Your task to perform on an android device: Search for Italian restaurants on Maps Image 0: 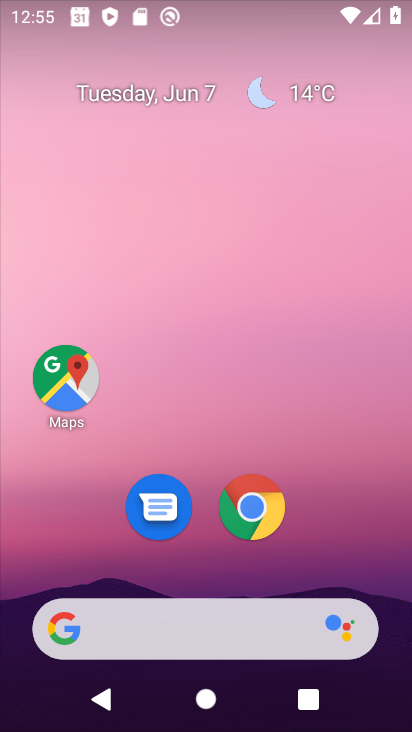
Step 0: click (39, 360)
Your task to perform on an android device: Search for Italian restaurants on Maps Image 1: 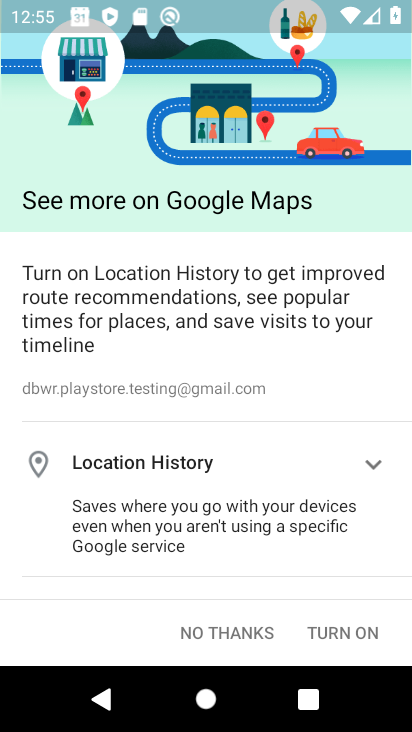
Step 1: click (225, 637)
Your task to perform on an android device: Search for Italian restaurants on Maps Image 2: 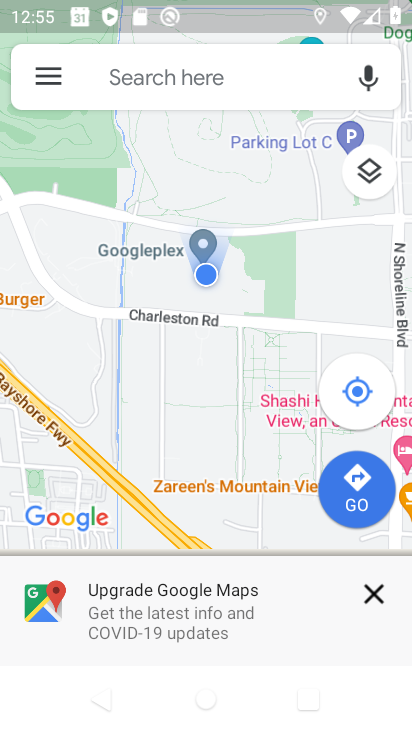
Step 2: click (143, 77)
Your task to perform on an android device: Search for Italian restaurants on Maps Image 3: 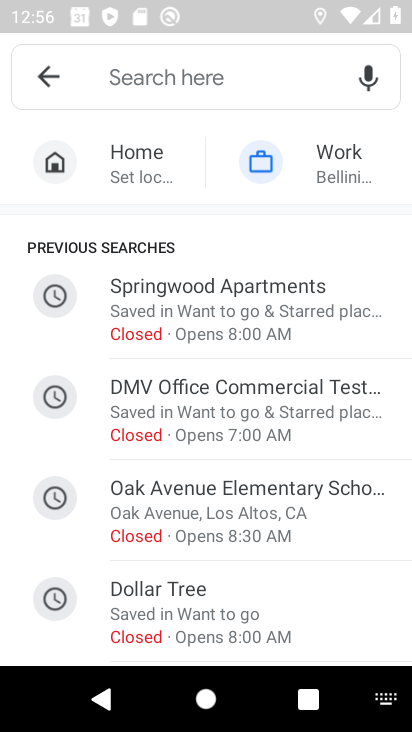
Step 3: type "italian restaurants"
Your task to perform on an android device: Search for Italian restaurants on Maps Image 4: 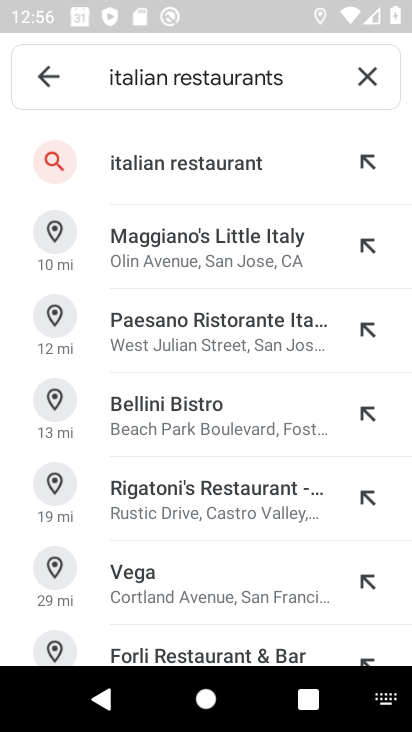
Step 4: click (166, 160)
Your task to perform on an android device: Search for Italian restaurants on Maps Image 5: 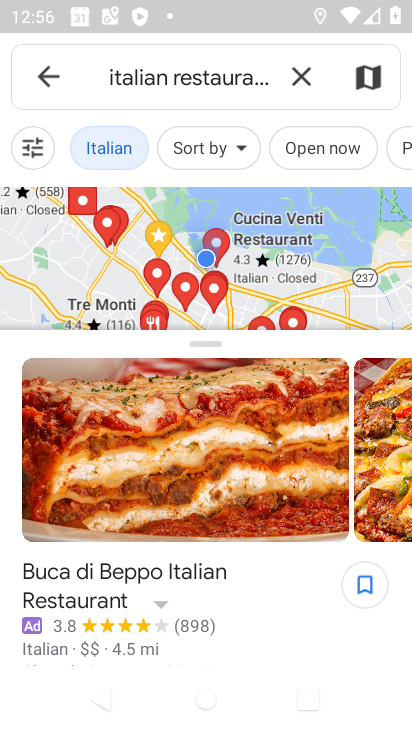
Step 5: task complete